Your task to perform on an android device: star an email in the gmail app Image 0: 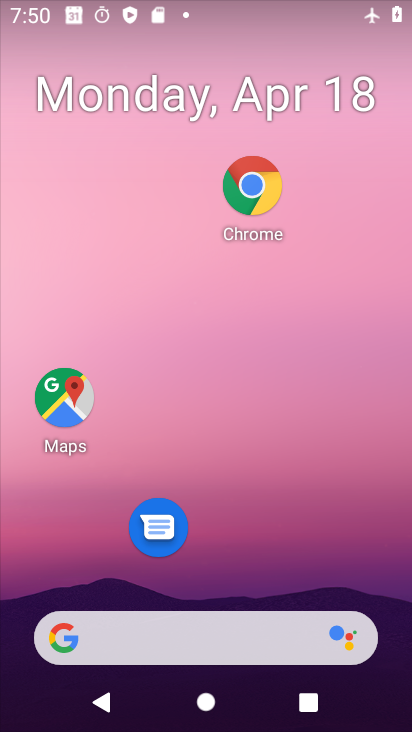
Step 0: click (247, 188)
Your task to perform on an android device: star an email in the gmail app Image 1: 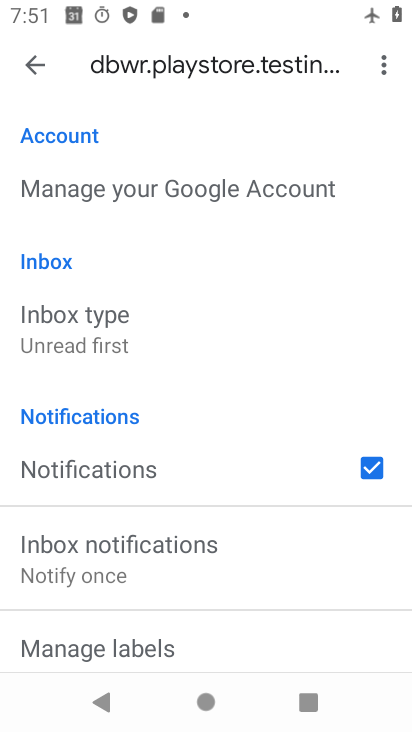
Step 1: press home button
Your task to perform on an android device: star an email in the gmail app Image 2: 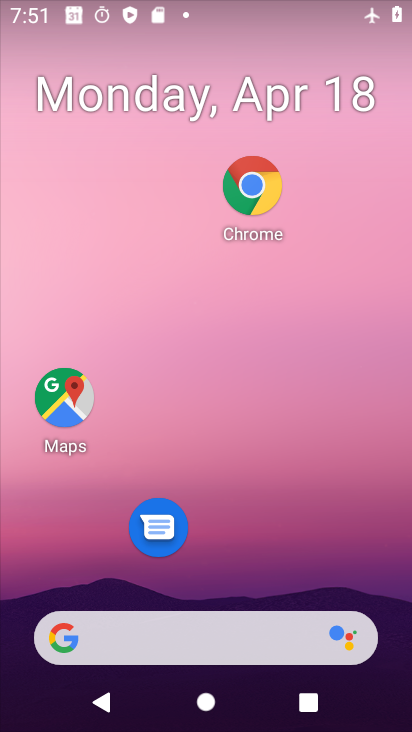
Step 2: drag from (291, 525) to (332, 155)
Your task to perform on an android device: star an email in the gmail app Image 3: 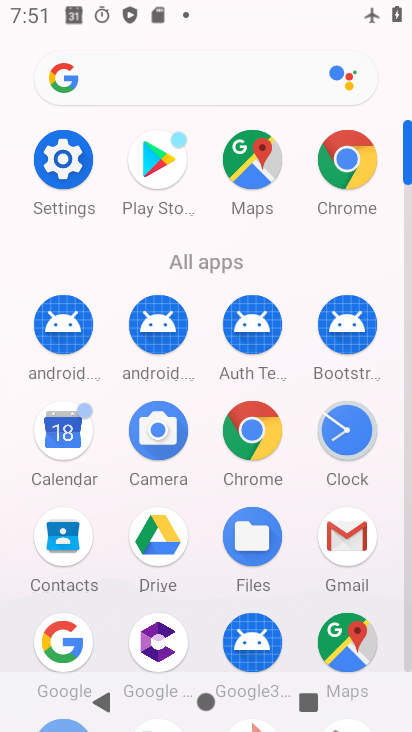
Step 3: click (339, 429)
Your task to perform on an android device: star an email in the gmail app Image 4: 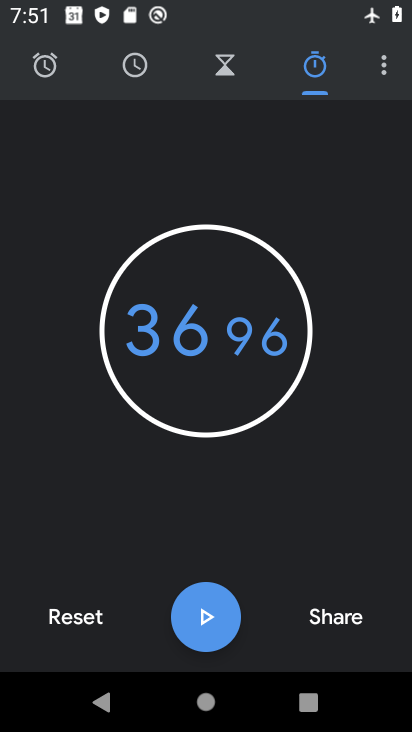
Step 4: click (86, 612)
Your task to perform on an android device: star an email in the gmail app Image 5: 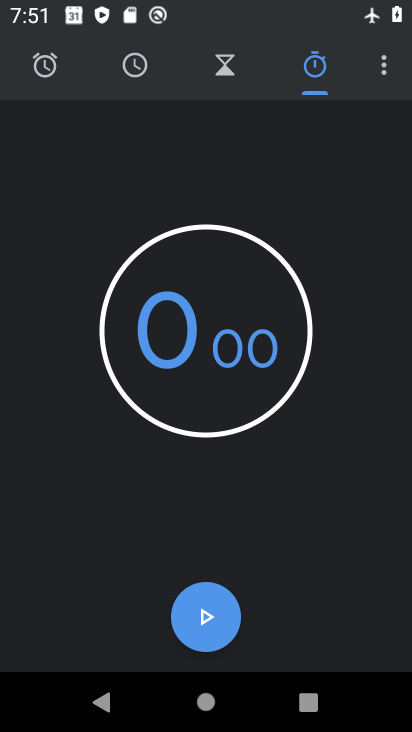
Step 5: click (220, 627)
Your task to perform on an android device: star an email in the gmail app Image 6: 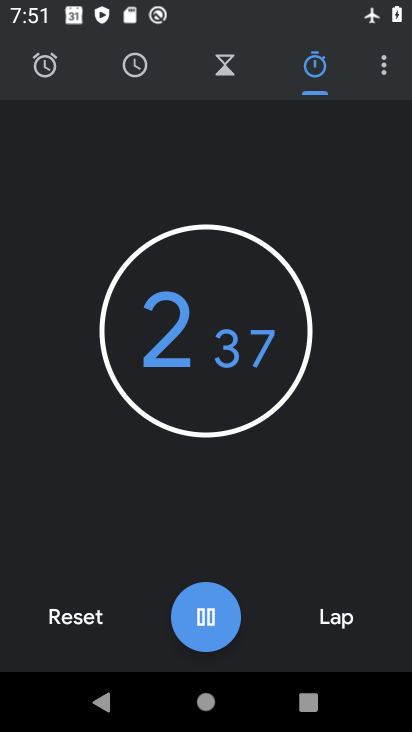
Step 6: press home button
Your task to perform on an android device: star an email in the gmail app Image 7: 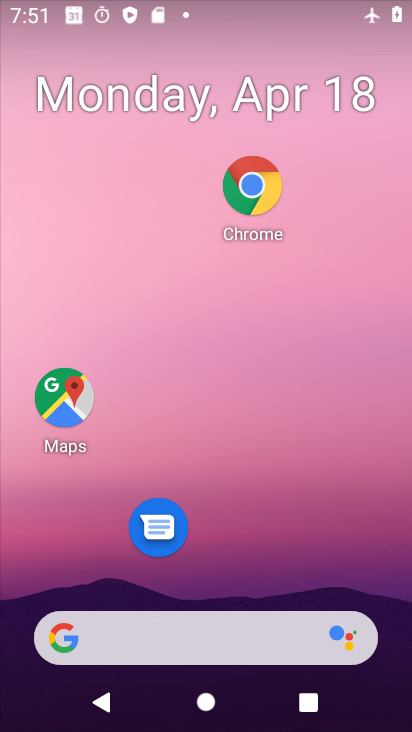
Step 7: drag from (294, 623) to (278, 227)
Your task to perform on an android device: star an email in the gmail app Image 8: 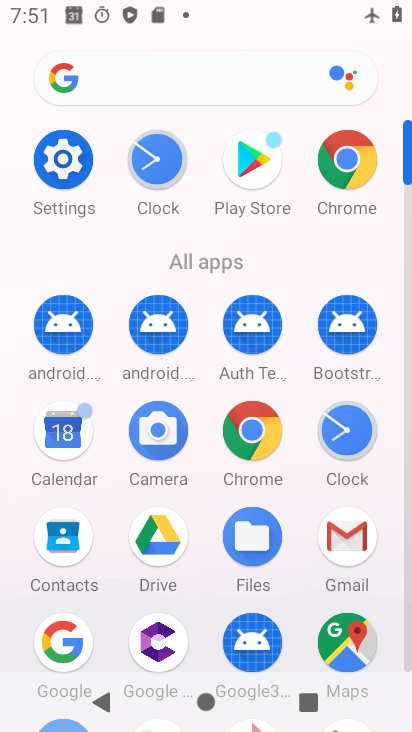
Step 8: click (344, 531)
Your task to perform on an android device: star an email in the gmail app Image 9: 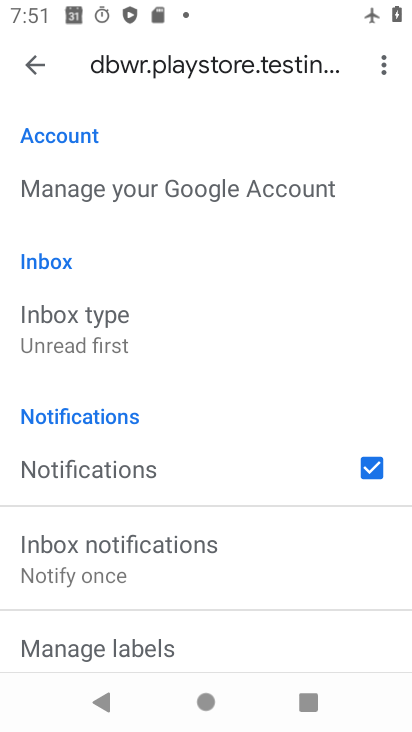
Step 9: click (35, 63)
Your task to perform on an android device: star an email in the gmail app Image 10: 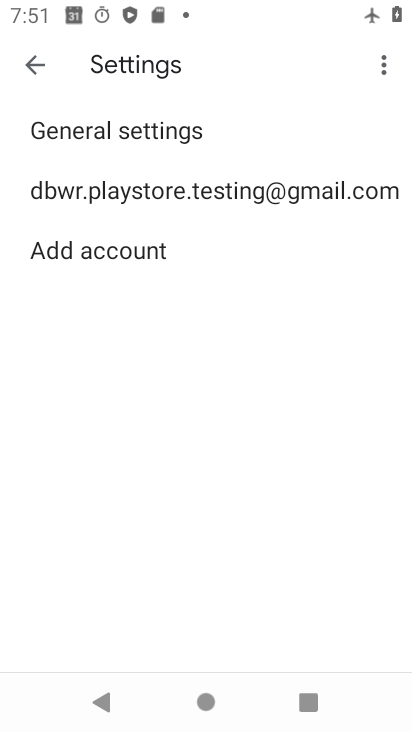
Step 10: click (35, 63)
Your task to perform on an android device: star an email in the gmail app Image 11: 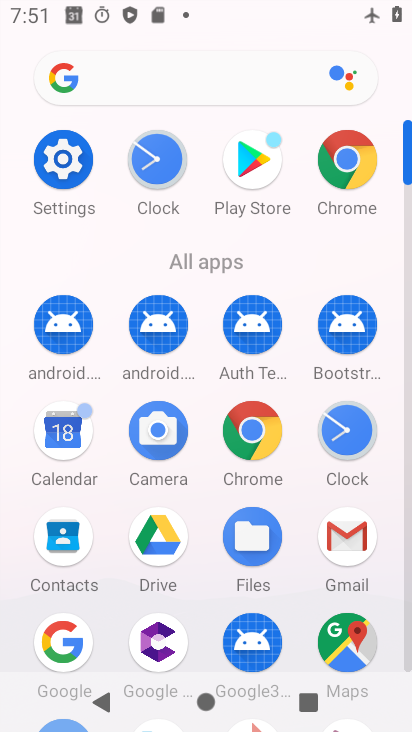
Step 11: click (342, 525)
Your task to perform on an android device: star an email in the gmail app Image 12: 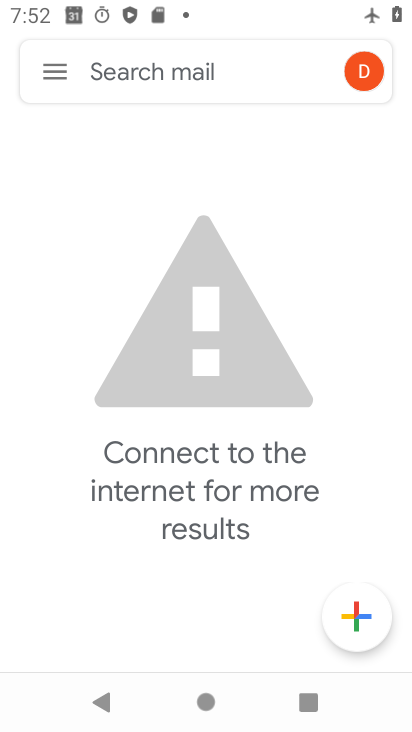
Step 12: click (58, 65)
Your task to perform on an android device: star an email in the gmail app Image 13: 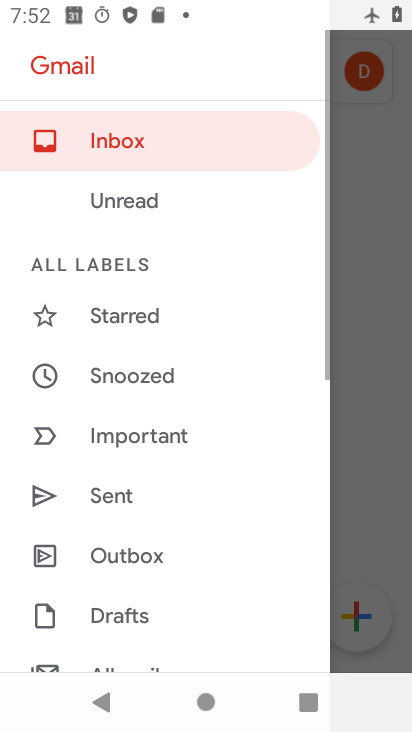
Step 13: click (159, 317)
Your task to perform on an android device: star an email in the gmail app Image 14: 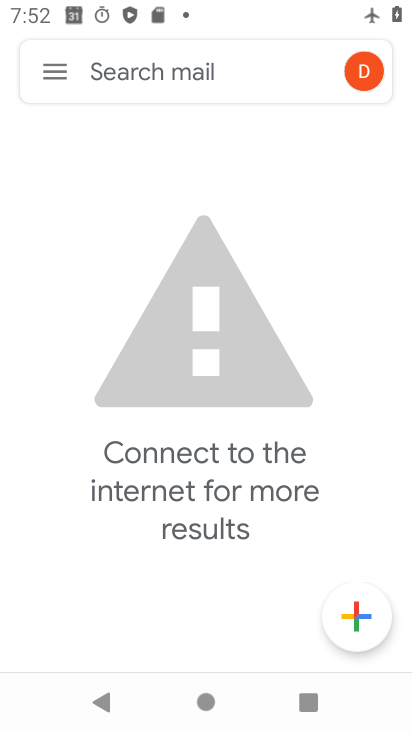
Step 14: task complete